Your task to perform on an android device: Open Google Chrome Image 0: 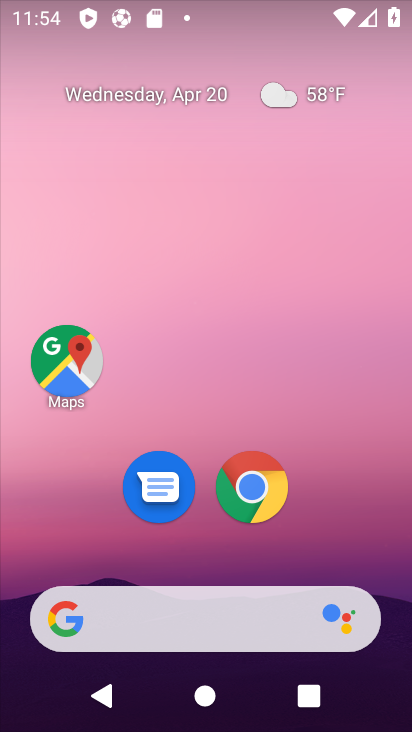
Step 0: click (254, 497)
Your task to perform on an android device: Open Google Chrome Image 1: 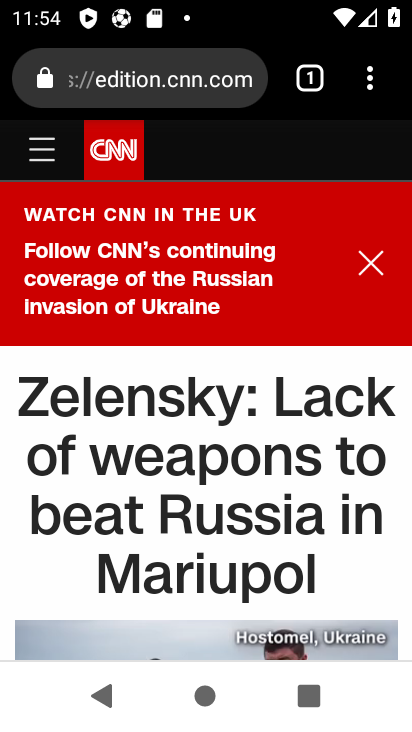
Step 1: task complete